Your task to perform on an android device: Go to network settings Image 0: 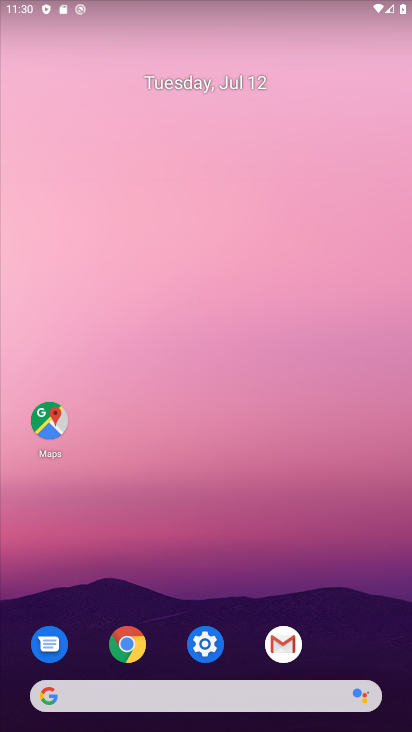
Step 0: click (223, 638)
Your task to perform on an android device: Go to network settings Image 1: 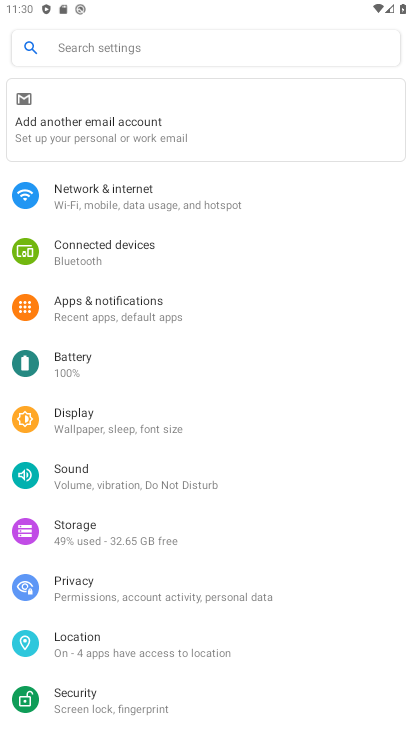
Step 1: click (164, 201)
Your task to perform on an android device: Go to network settings Image 2: 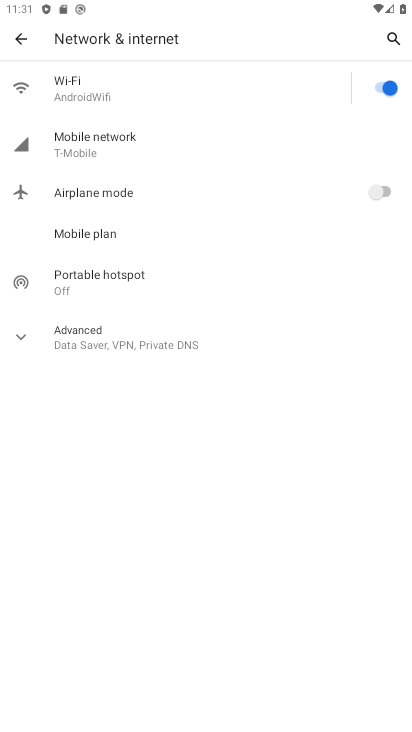
Step 2: task complete